Your task to perform on an android device: turn on wifi Image 0: 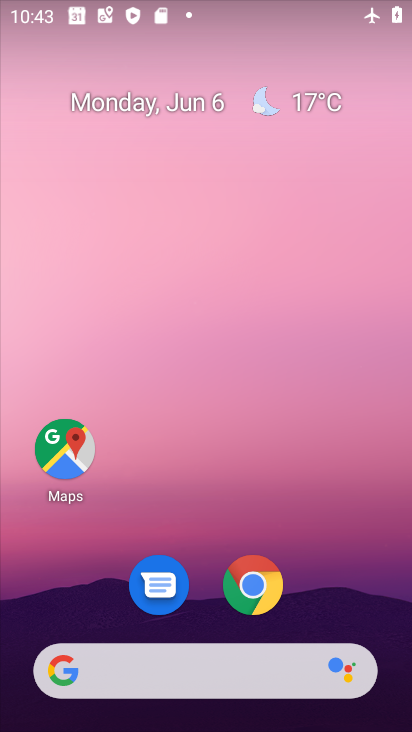
Step 0: drag from (226, 473) to (280, 29)
Your task to perform on an android device: turn on wifi Image 1: 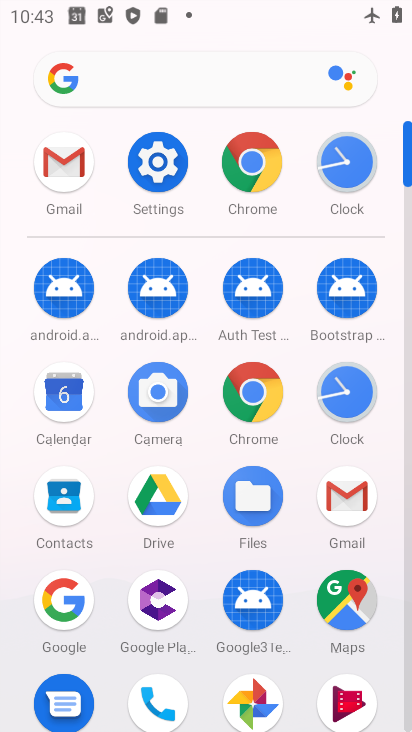
Step 1: click (162, 174)
Your task to perform on an android device: turn on wifi Image 2: 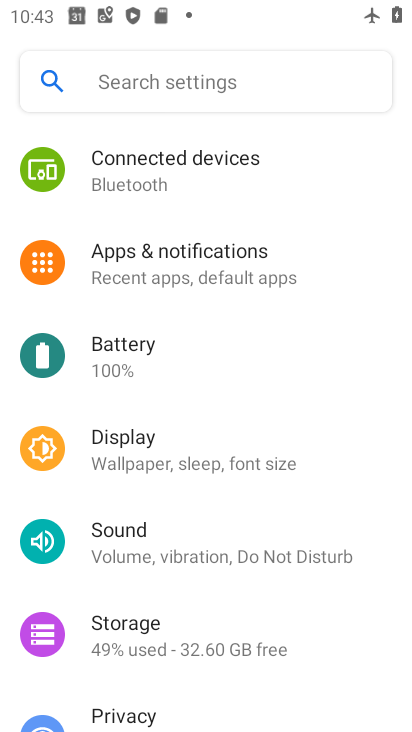
Step 2: drag from (196, 222) to (250, 575)
Your task to perform on an android device: turn on wifi Image 3: 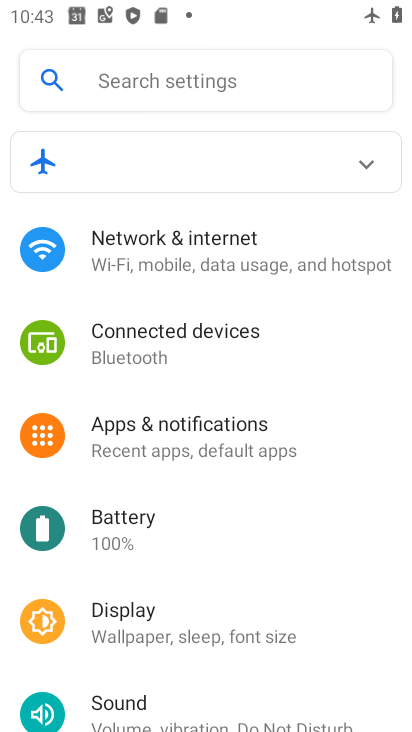
Step 3: click (232, 258)
Your task to perform on an android device: turn on wifi Image 4: 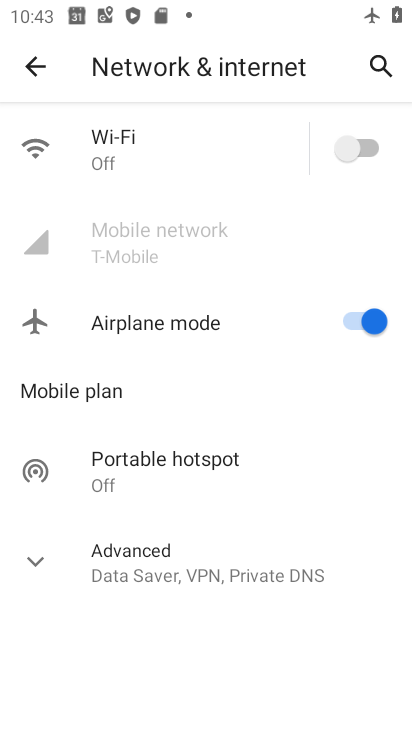
Step 4: click (348, 141)
Your task to perform on an android device: turn on wifi Image 5: 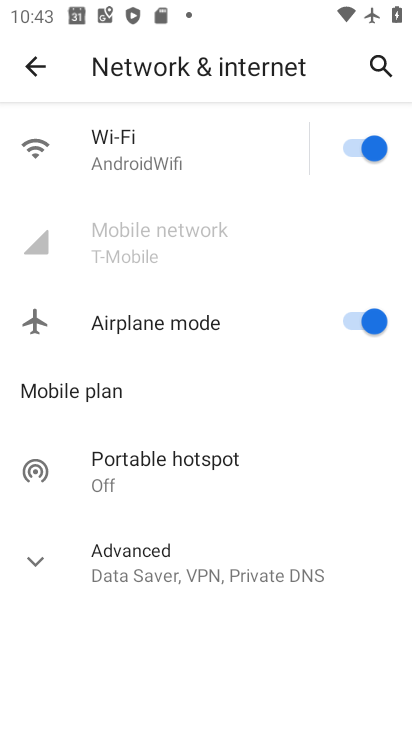
Step 5: task complete